Your task to perform on an android device: Google the capital of Uruguay Image 0: 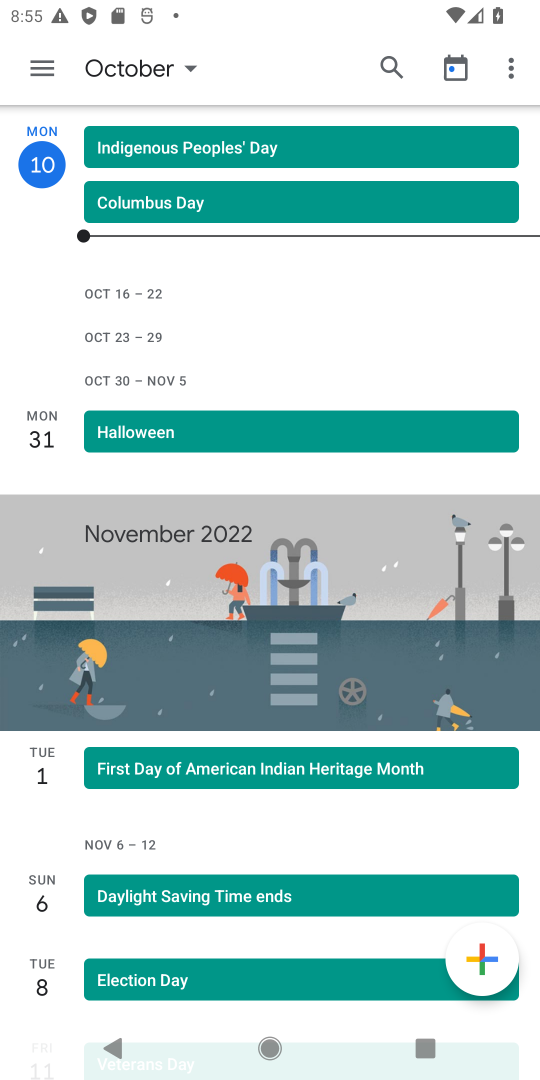
Step 0: press home button
Your task to perform on an android device: Google the capital of Uruguay Image 1: 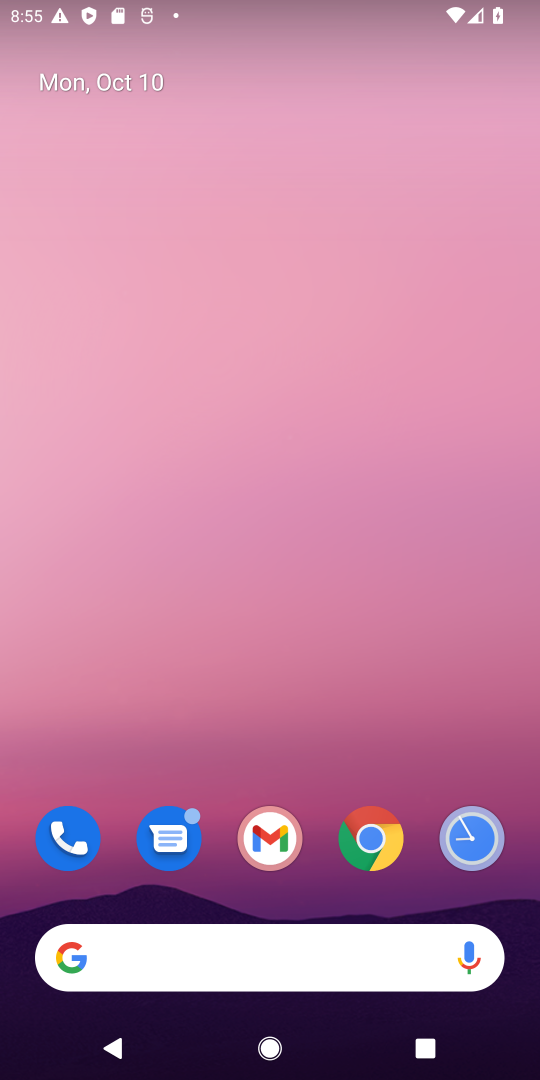
Step 1: drag from (298, 913) to (299, 94)
Your task to perform on an android device: Google the capital of Uruguay Image 2: 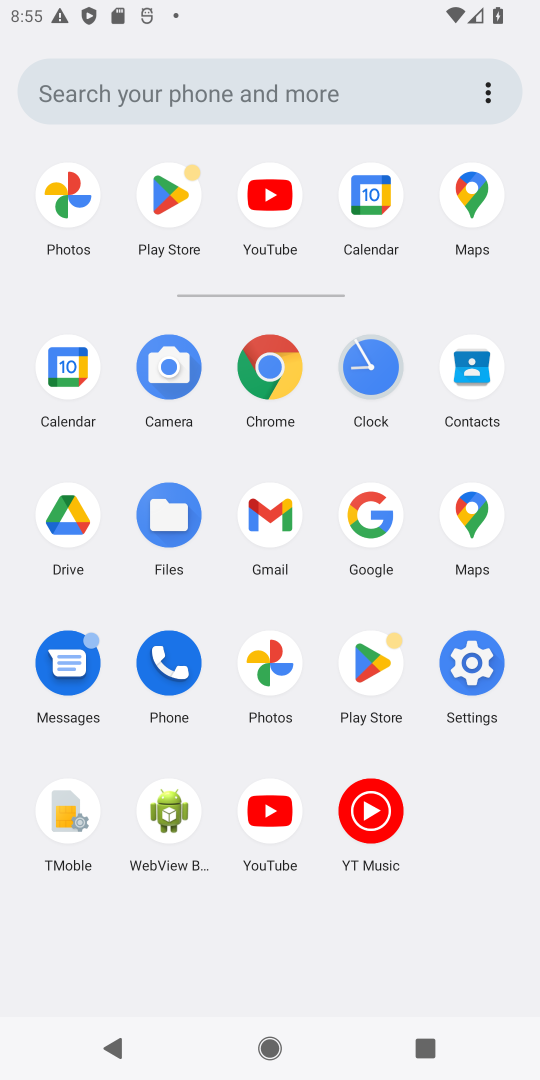
Step 2: click (365, 521)
Your task to perform on an android device: Google the capital of Uruguay Image 3: 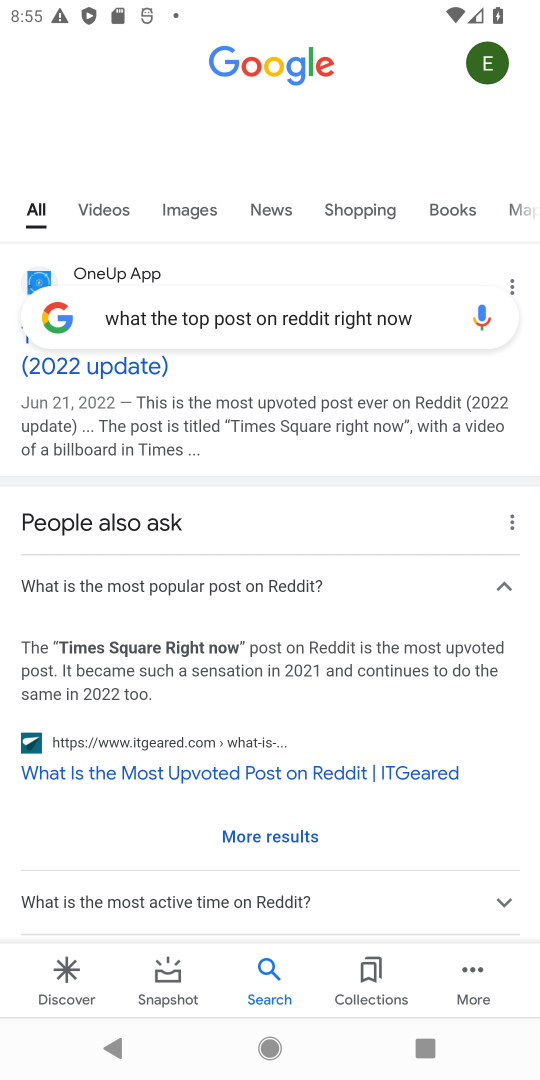
Step 3: click (404, 320)
Your task to perform on an android device: Google the capital of Uruguay Image 4: 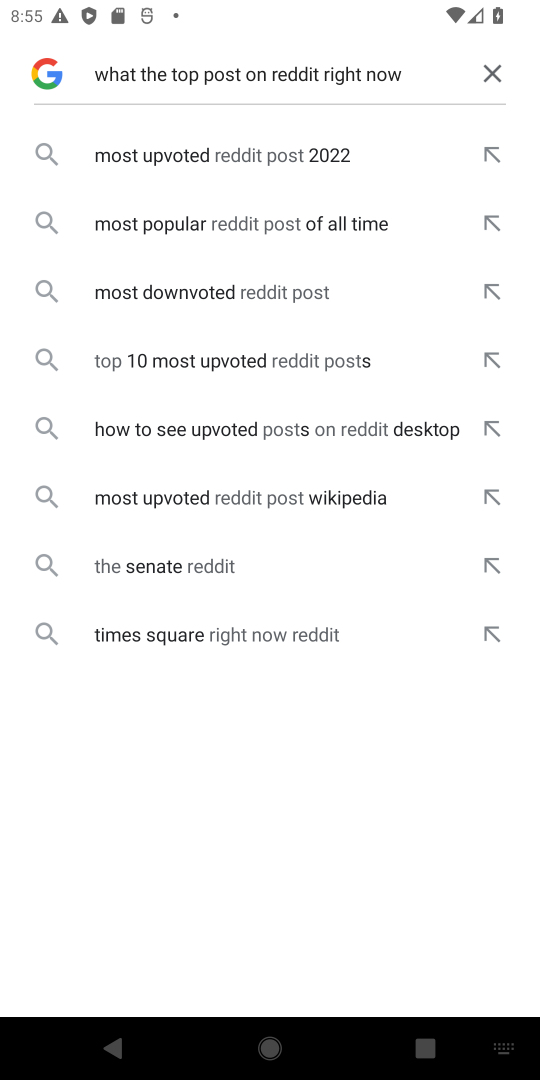
Step 4: click (496, 74)
Your task to perform on an android device: Google the capital of Uruguay Image 5: 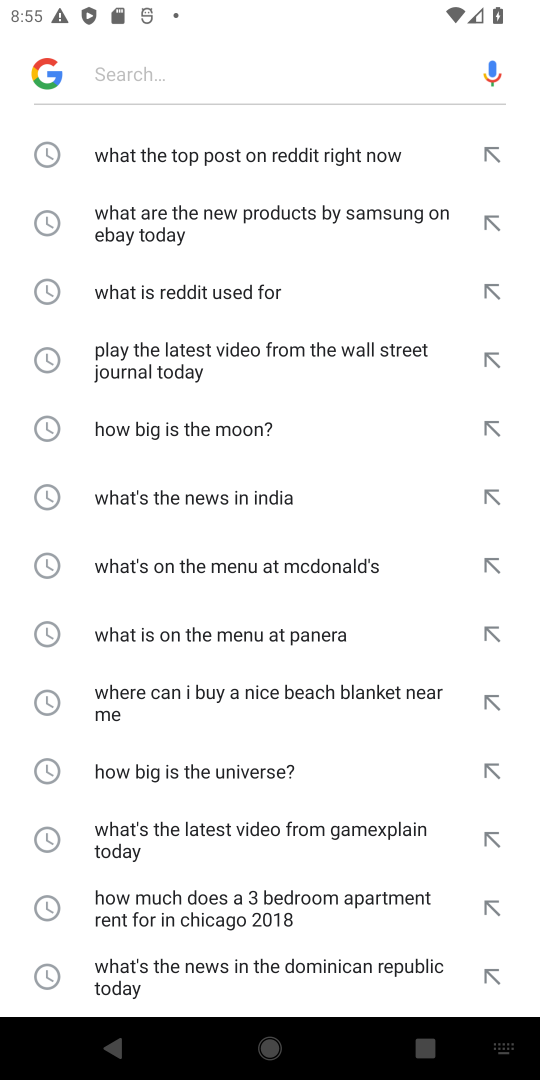
Step 5: type "capital of Uruguay"
Your task to perform on an android device: Google the capital of Uruguay Image 6: 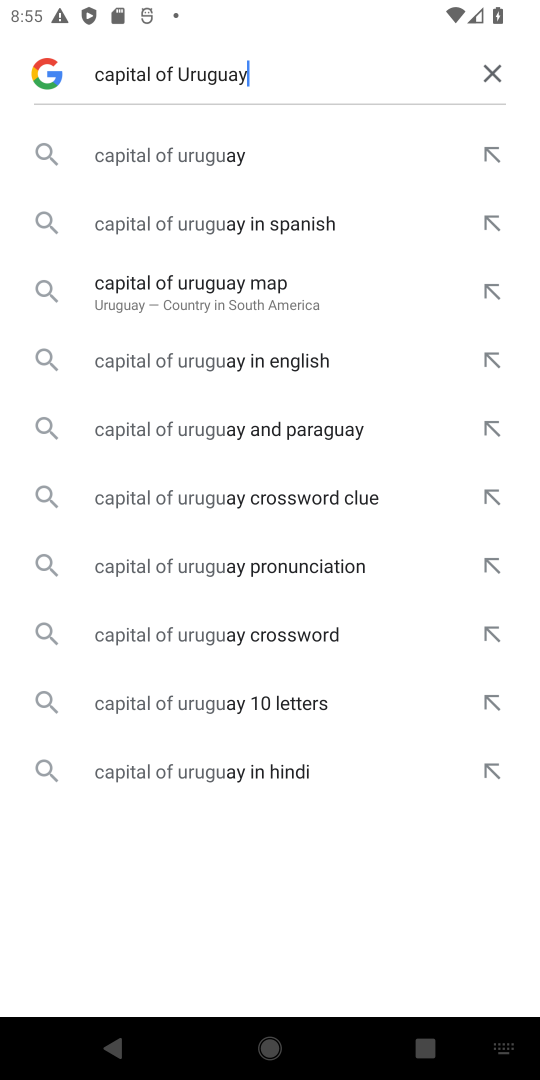
Step 6: type ""
Your task to perform on an android device: Google the capital of Uruguay Image 7: 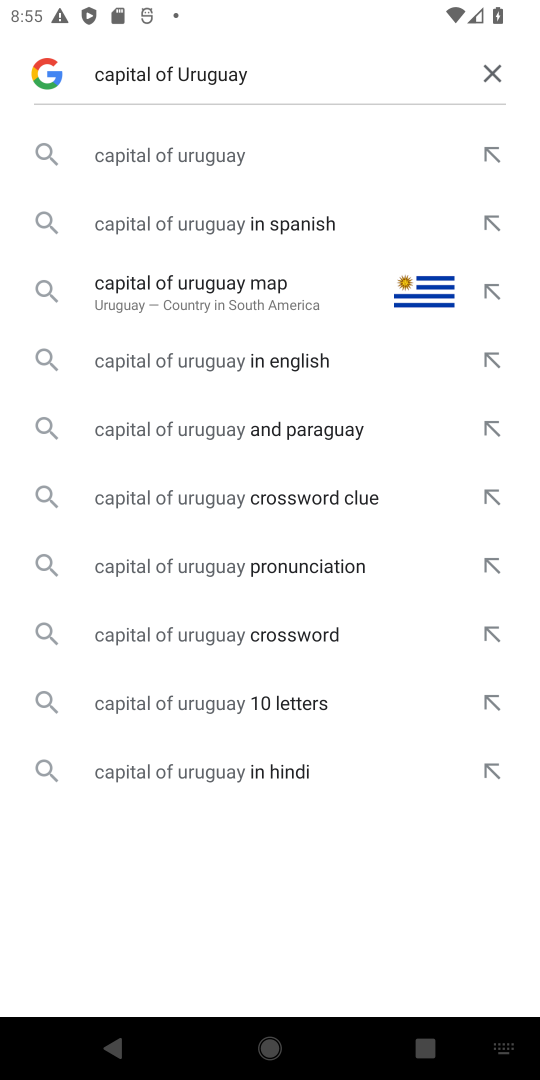
Step 7: click (211, 161)
Your task to perform on an android device: Google the capital of Uruguay Image 8: 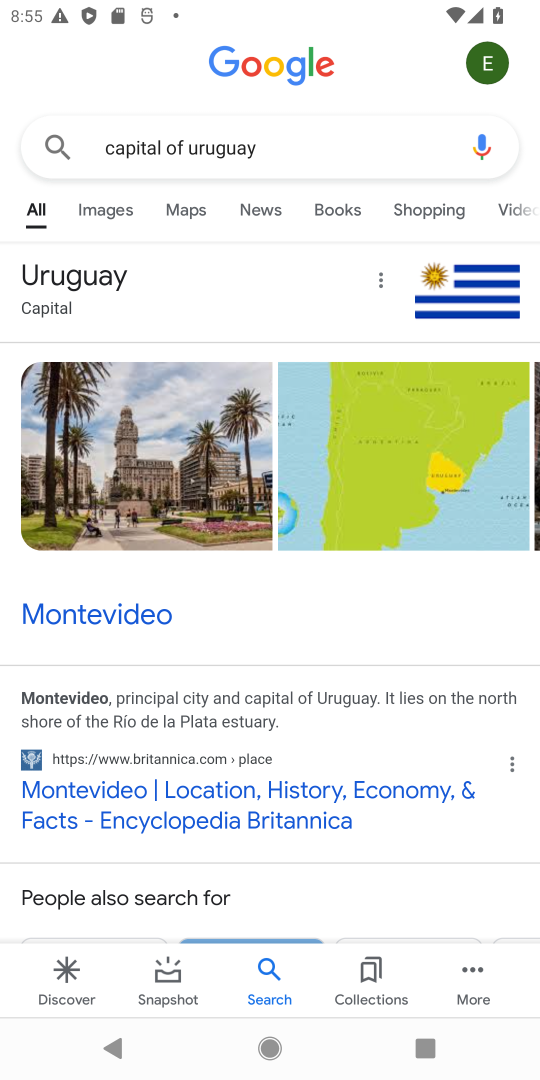
Step 8: task complete